Your task to perform on an android device: Open settings on Google Maps Image 0: 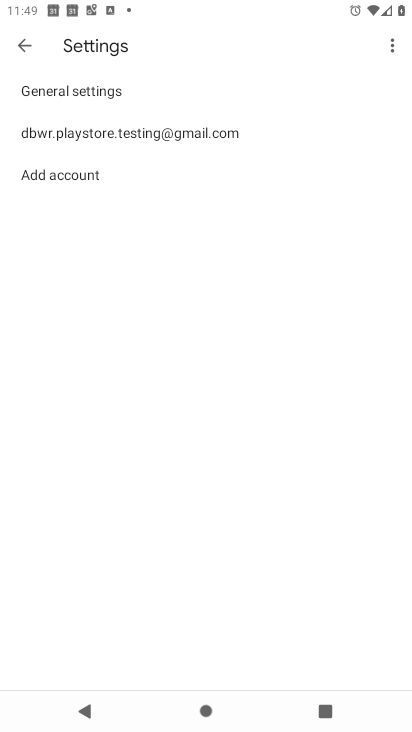
Step 0: press home button
Your task to perform on an android device: Open settings on Google Maps Image 1: 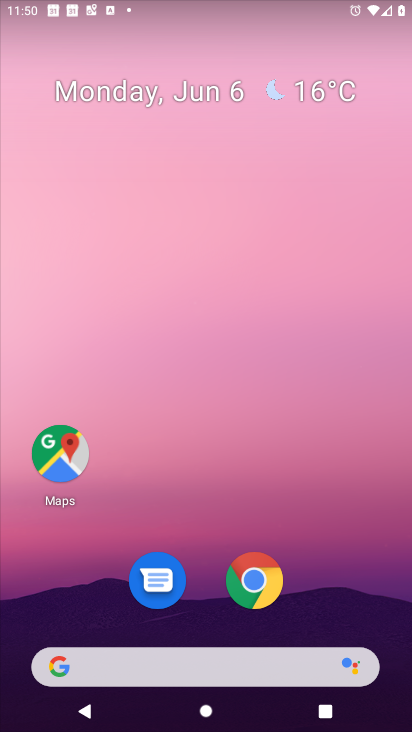
Step 1: drag from (375, 558) to (353, 69)
Your task to perform on an android device: Open settings on Google Maps Image 2: 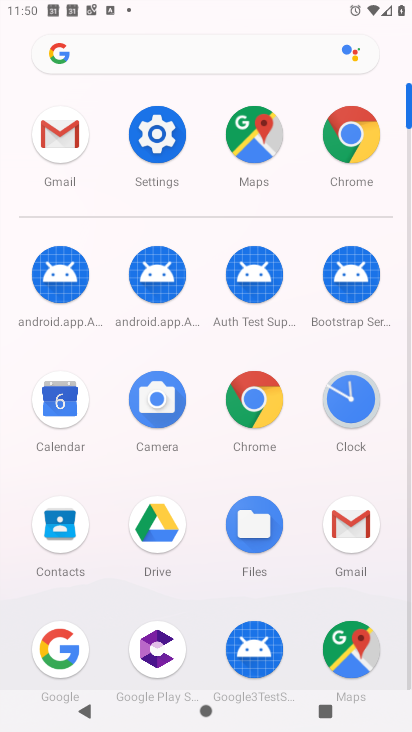
Step 2: click (380, 638)
Your task to perform on an android device: Open settings on Google Maps Image 3: 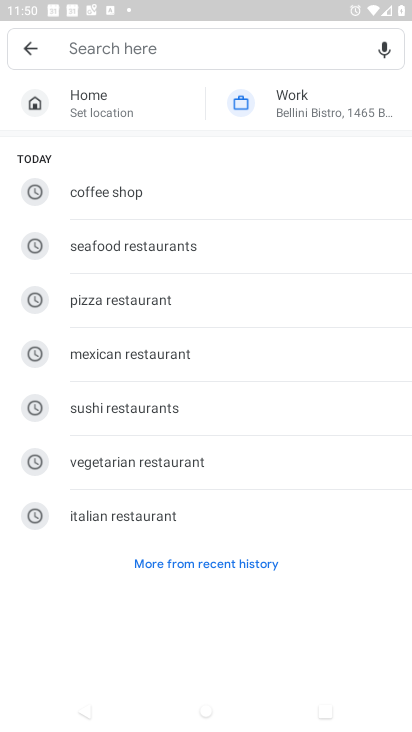
Step 3: task complete